Your task to perform on an android device: Turn off the flashlight Image 0: 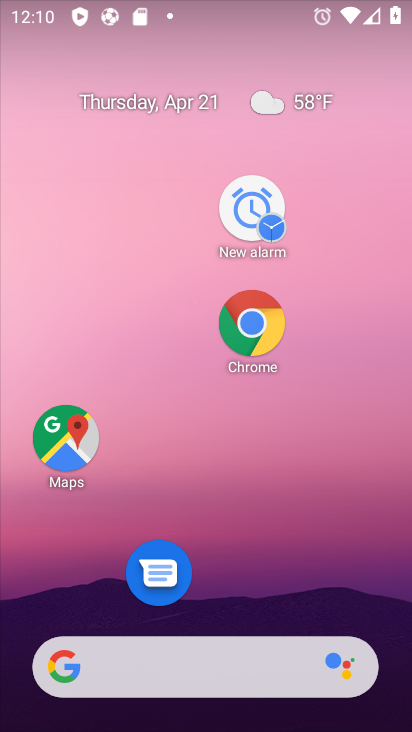
Step 0: drag from (358, 478) to (409, 512)
Your task to perform on an android device: Turn off the flashlight Image 1: 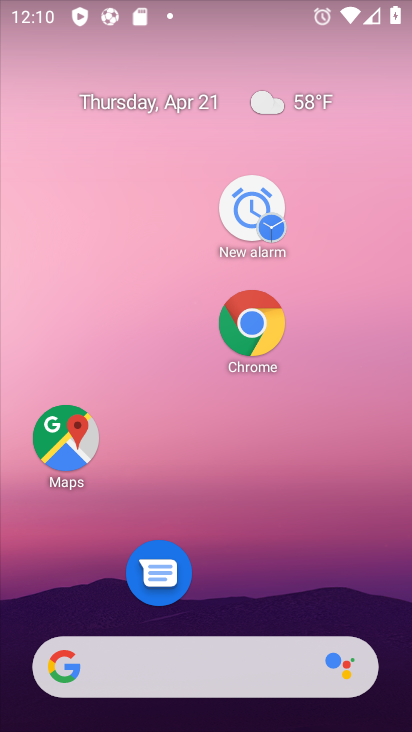
Step 1: task complete